Your task to perform on an android device: change keyboard looks Image 0: 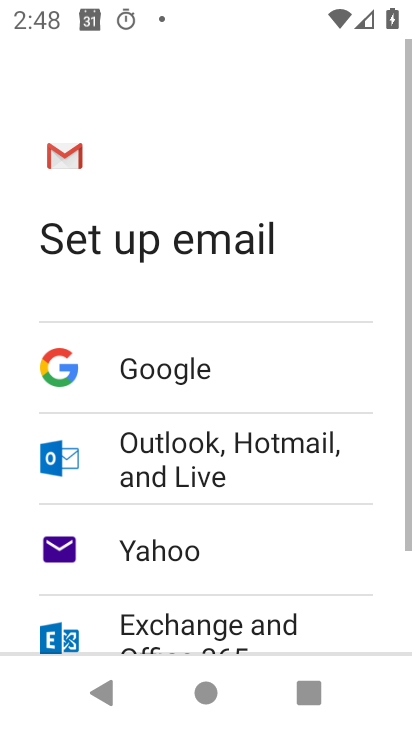
Step 0: press home button
Your task to perform on an android device: change keyboard looks Image 1: 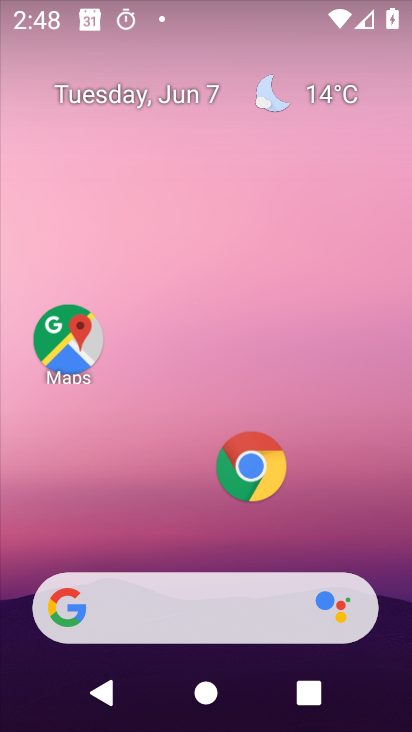
Step 1: drag from (177, 727) to (163, 297)
Your task to perform on an android device: change keyboard looks Image 2: 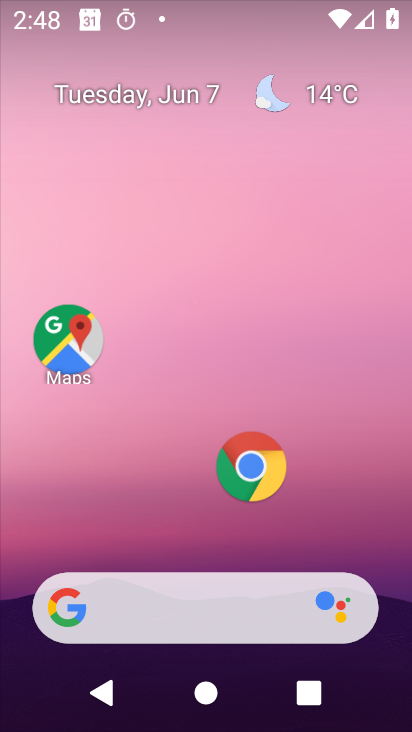
Step 2: drag from (144, 590) to (115, 70)
Your task to perform on an android device: change keyboard looks Image 3: 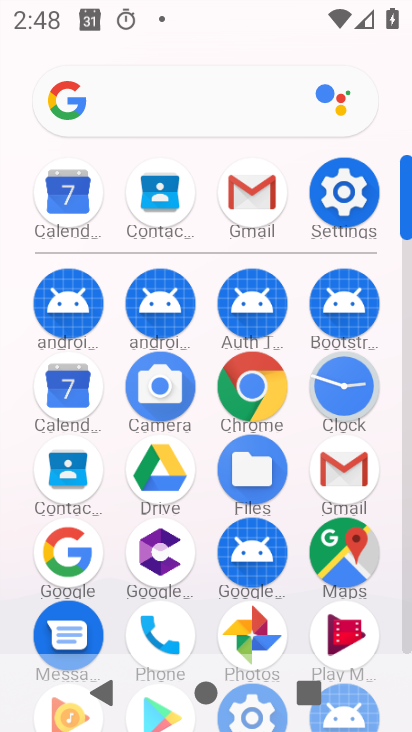
Step 3: click (331, 201)
Your task to perform on an android device: change keyboard looks Image 4: 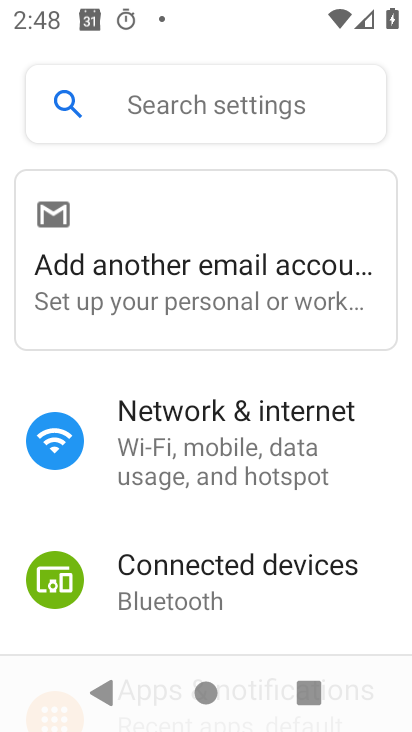
Step 4: drag from (287, 583) to (279, 230)
Your task to perform on an android device: change keyboard looks Image 5: 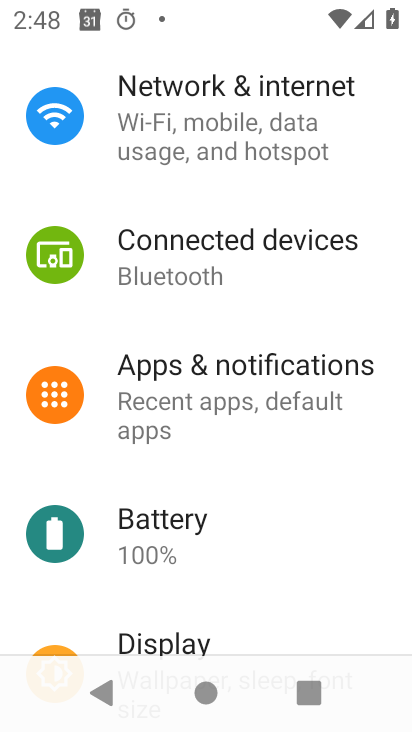
Step 5: drag from (289, 529) to (309, 136)
Your task to perform on an android device: change keyboard looks Image 6: 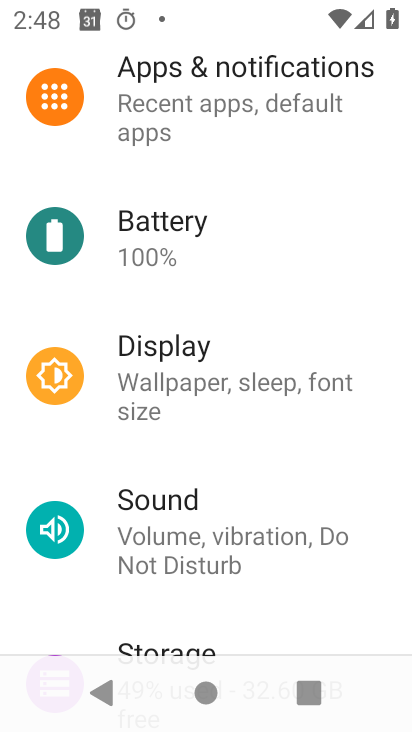
Step 6: drag from (283, 626) to (362, 282)
Your task to perform on an android device: change keyboard looks Image 7: 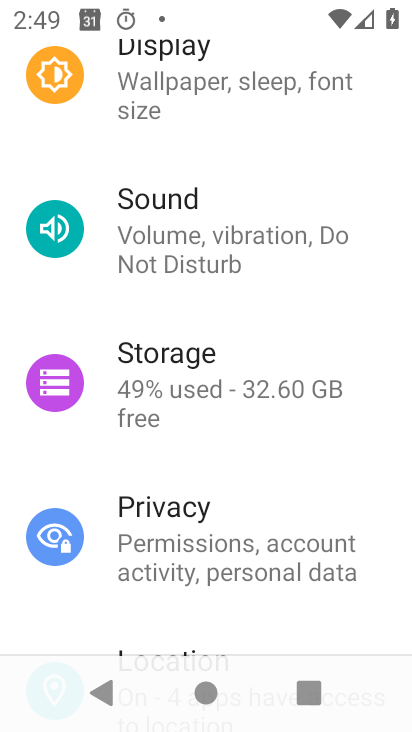
Step 7: drag from (283, 572) to (280, 215)
Your task to perform on an android device: change keyboard looks Image 8: 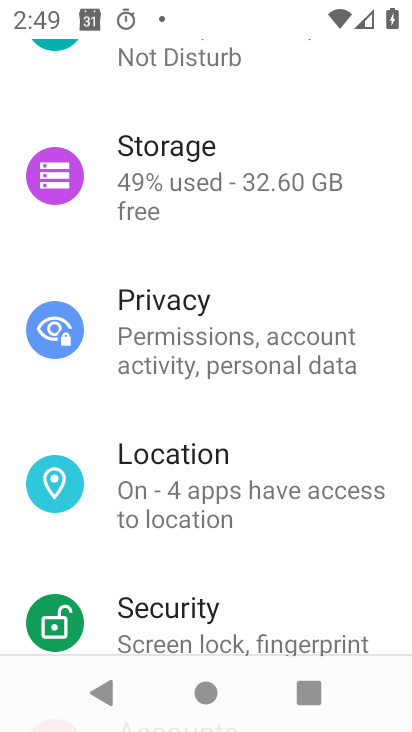
Step 8: drag from (299, 585) to (324, 228)
Your task to perform on an android device: change keyboard looks Image 9: 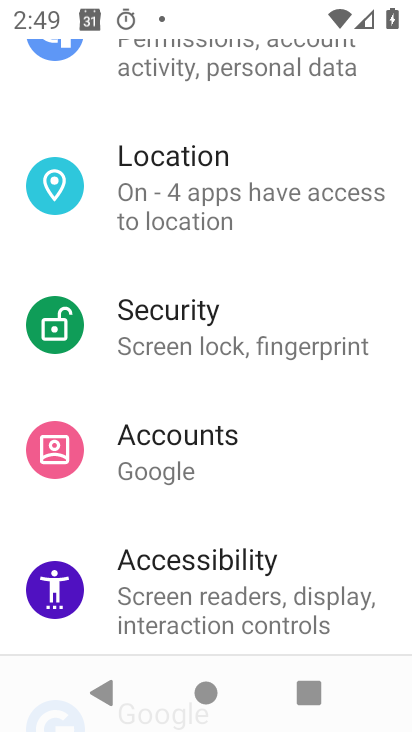
Step 9: drag from (266, 568) to (282, 172)
Your task to perform on an android device: change keyboard looks Image 10: 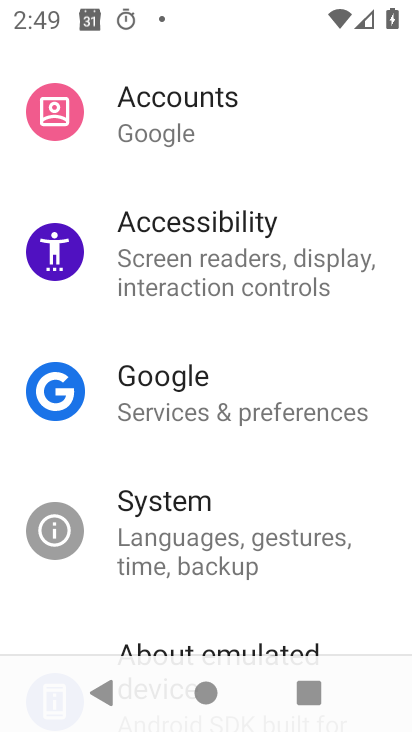
Step 10: click (219, 555)
Your task to perform on an android device: change keyboard looks Image 11: 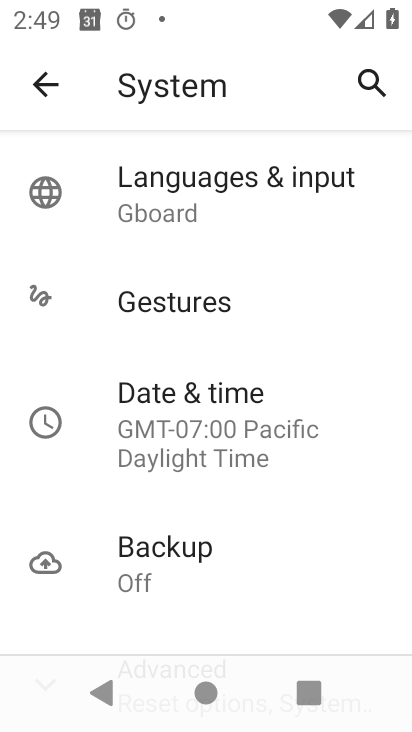
Step 11: click (208, 211)
Your task to perform on an android device: change keyboard looks Image 12: 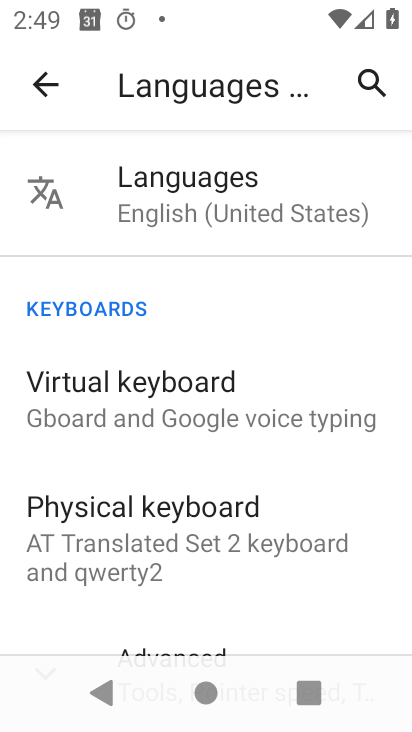
Step 12: click (164, 408)
Your task to perform on an android device: change keyboard looks Image 13: 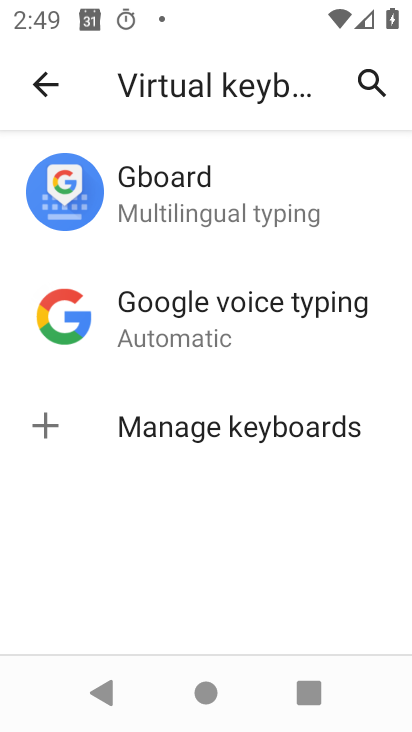
Step 13: click (174, 219)
Your task to perform on an android device: change keyboard looks Image 14: 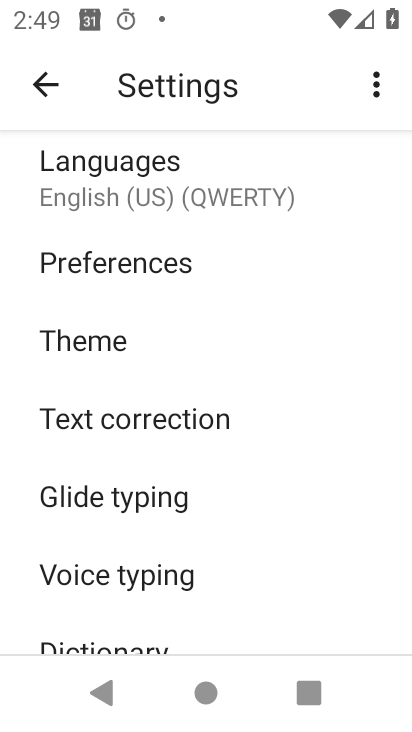
Step 14: click (118, 350)
Your task to perform on an android device: change keyboard looks Image 15: 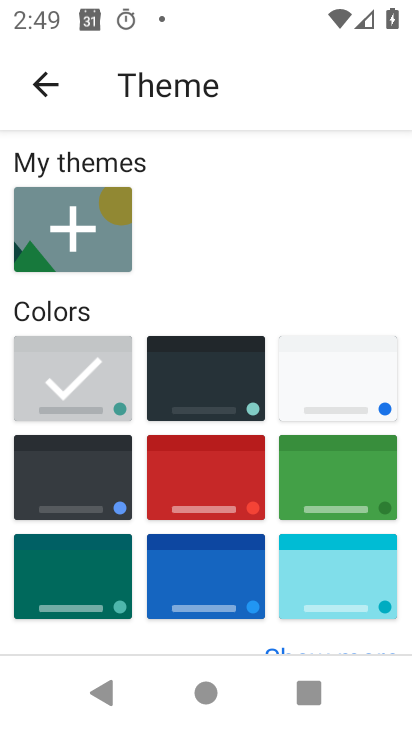
Step 15: click (196, 369)
Your task to perform on an android device: change keyboard looks Image 16: 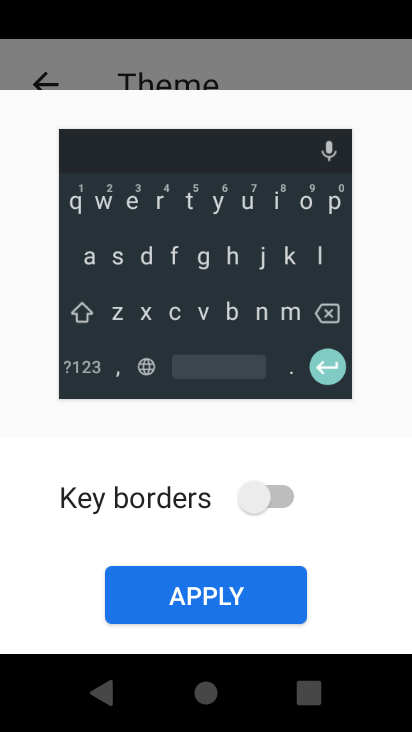
Step 16: click (278, 620)
Your task to perform on an android device: change keyboard looks Image 17: 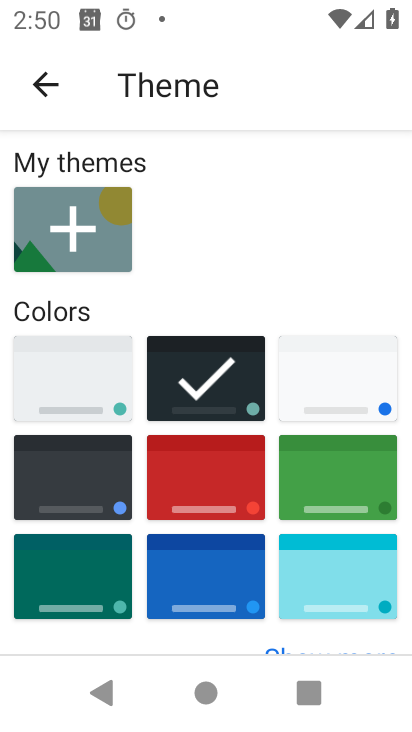
Step 17: task complete